Your task to perform on an android device: Go to Reddit.com Image 0: 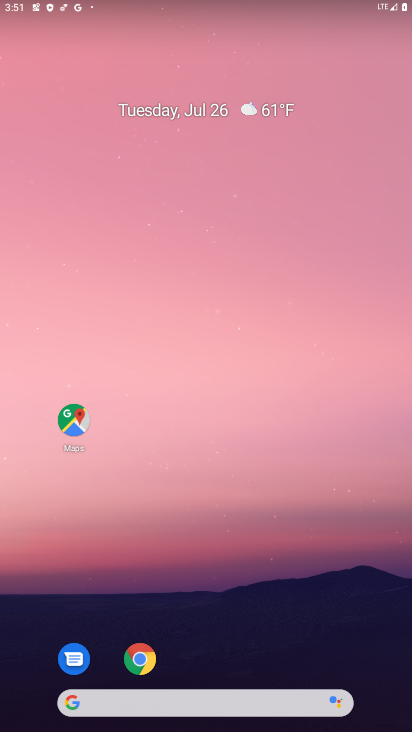
Step 0: press home button
Your task to perform on an android device: Go to Reddit.com Image 1: 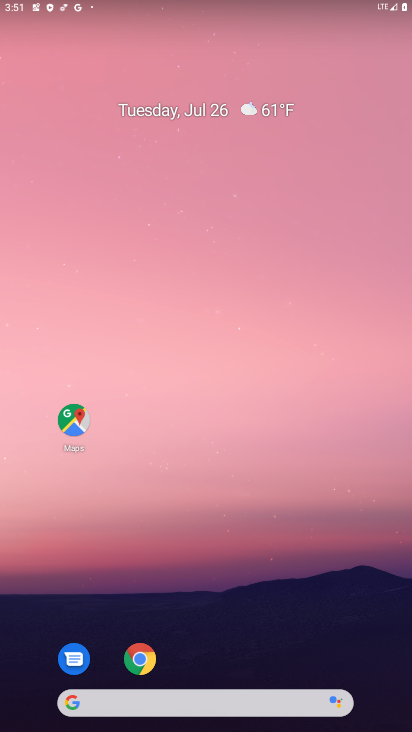
Step 1: drag from (243, 550) to (251, 2)
Your task to perform on an android device: Go to Reddit.com Image 2: 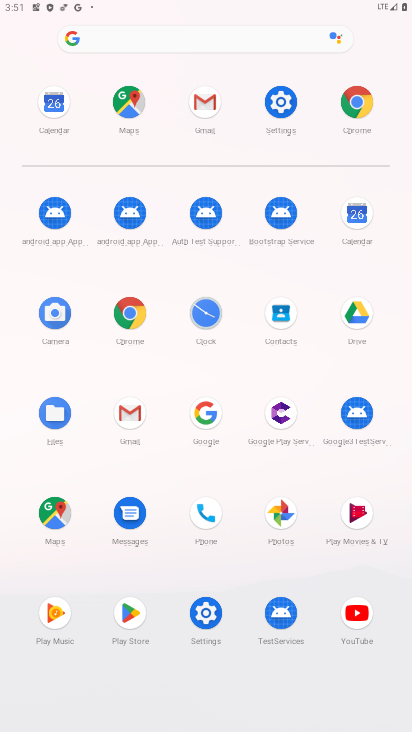
Step 2: click (355, 97)
Your task to perform on an android device: Go to Reddit.com Image 3: 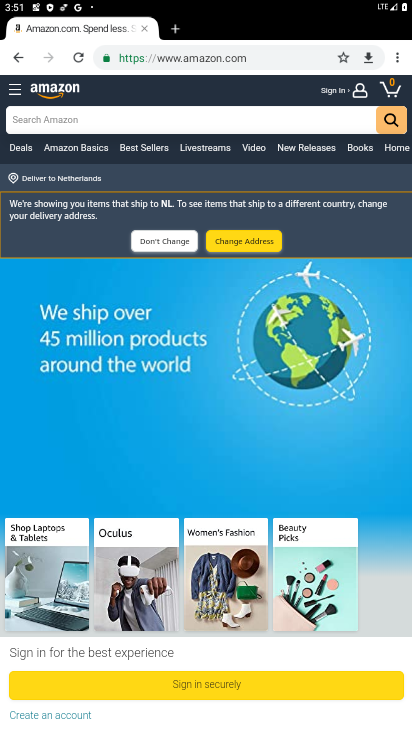
Step 3: click (355, 93)
Your task to perform on an android device: Go to Reddit.com Image 4: 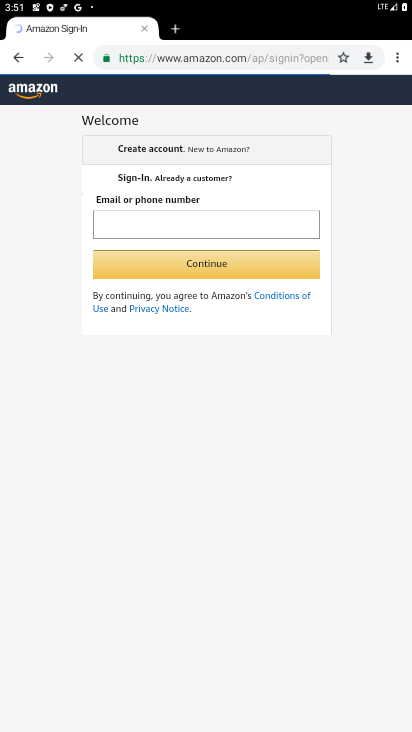
Step 4: click (252, 57)
Your task to perform on an android device: Go to Reddit.com Image 5: 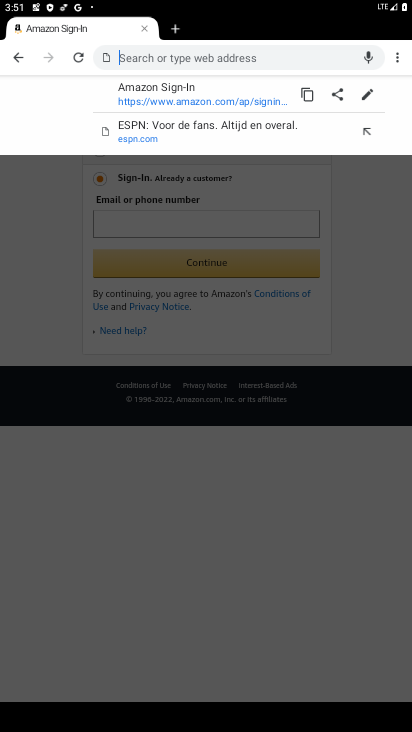
Step 5: type "reddit.com"
Your task to perform on an android device: Go to Reddit.com Image 6: 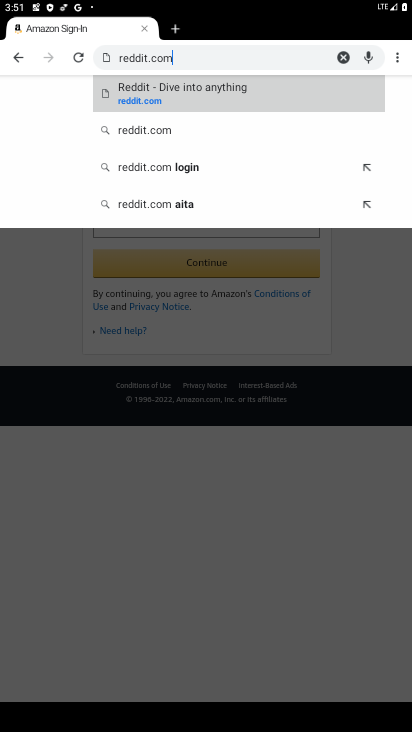
Step 6: click (160, 77)
Your task to perform on an android device: Go to Reddit.com Image 7: 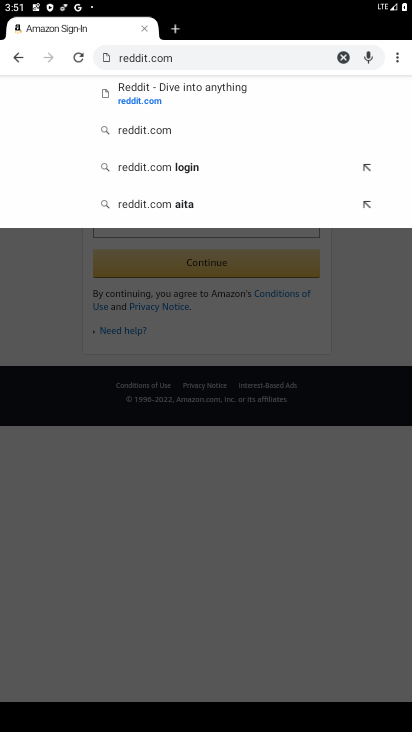
Step 7: click (150, 105)
Your task to perform on an android device: Go to Reddit.com Image 8: 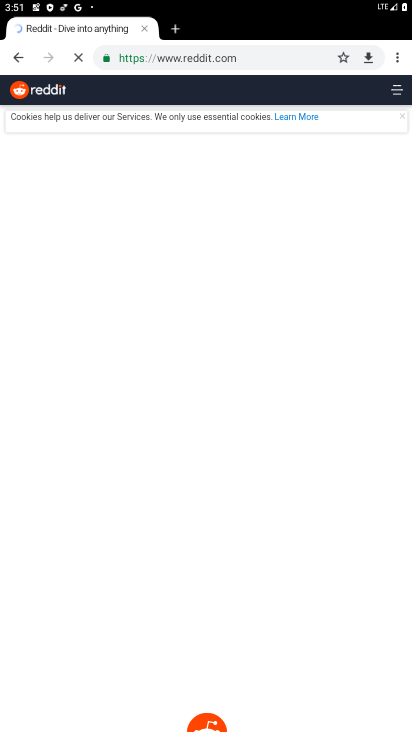
Step 8: task complete